Your task to perform on an android device: turn off location history Image 0: 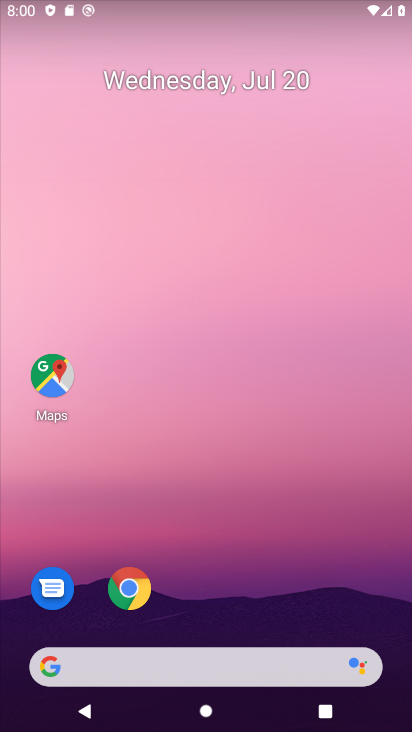
Step 0: drag from (27, 689) to (273, 11)
Your task to perform on an android device: turn off location history Image 1: 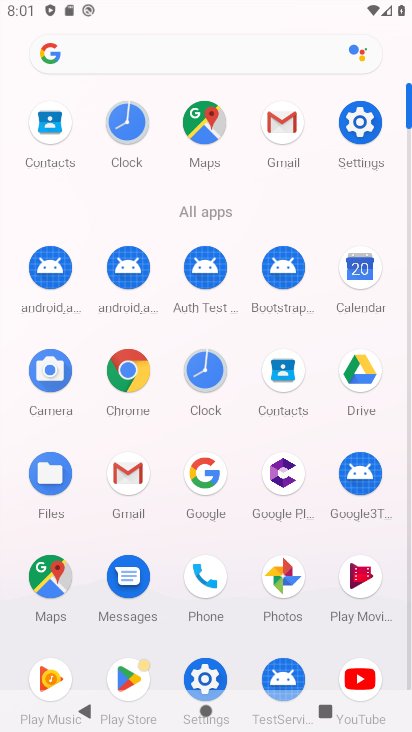
Step 1: click (201, 680)
Your task to perform on an android device: turn off location history Image 2: 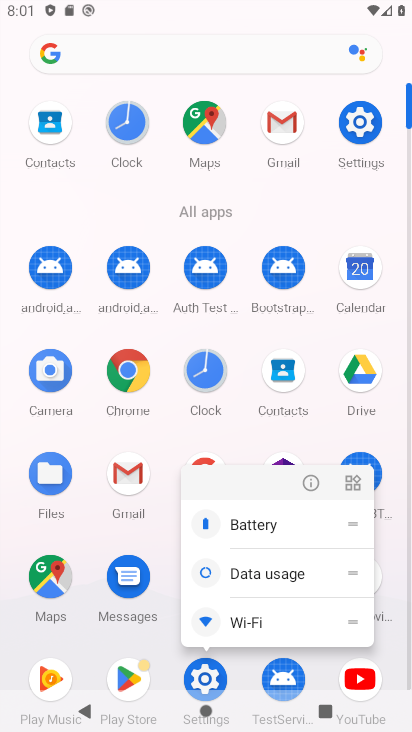
Step 2: click (192, 685)
Your task to perform on an android device: turn off location history Image 3: 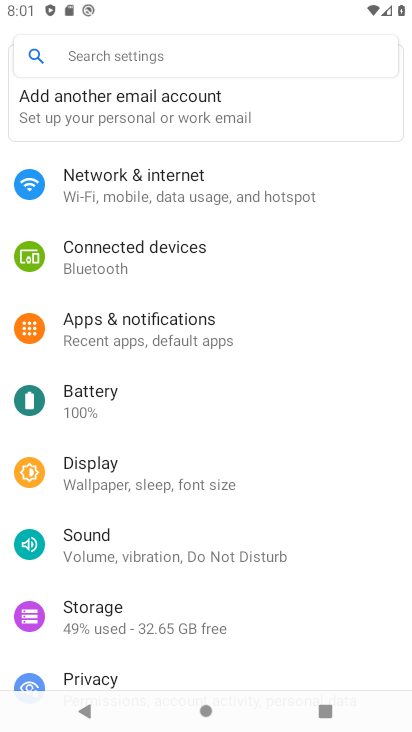
Step 3: drag from (339, 606) to (399, 315)
Your task to perform on an android device: turn off location history Image 4: 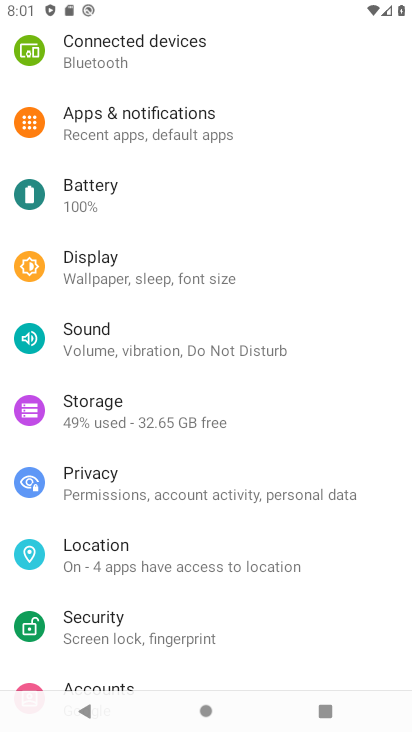
Step 4: click (108, 549)
Your task to perform on an android device: turn off location history Image 5: 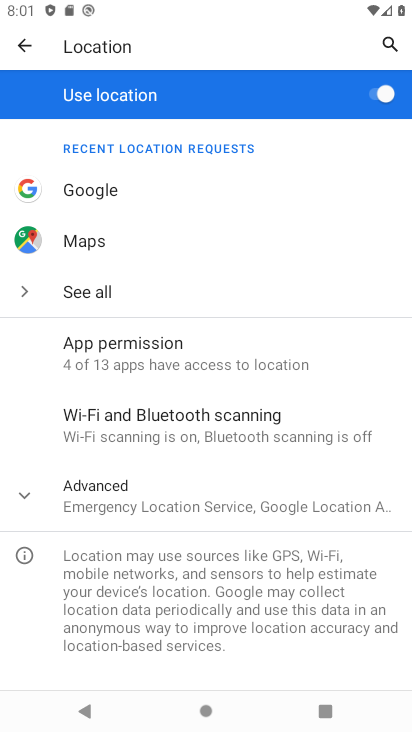
Step 5: click (153, 495)
Your task to perform on an android device: turn off location history Image 6: 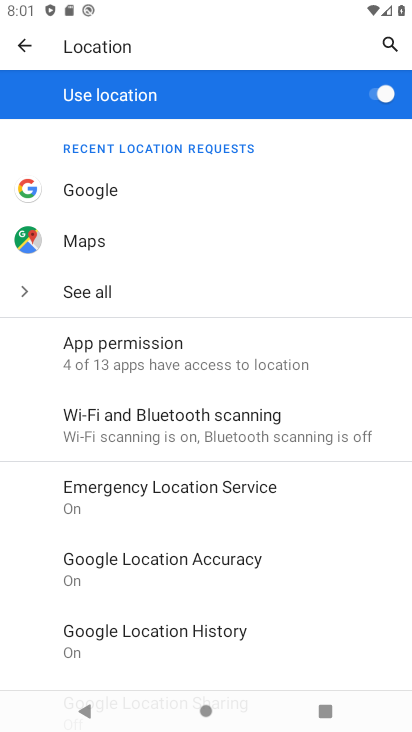
Step 6: click (147, 644)
Your task to perform on an android device: turn off location history Image 7: 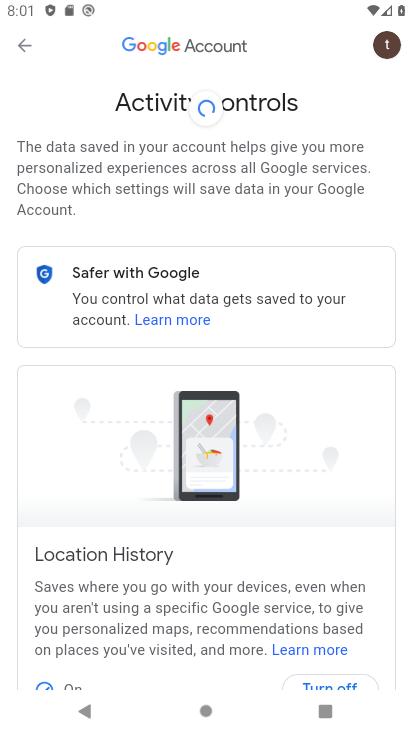
Step 7: drag from (269, 589) to (301, 376)
Your task to perform on an android device: turn off location history Image 8: 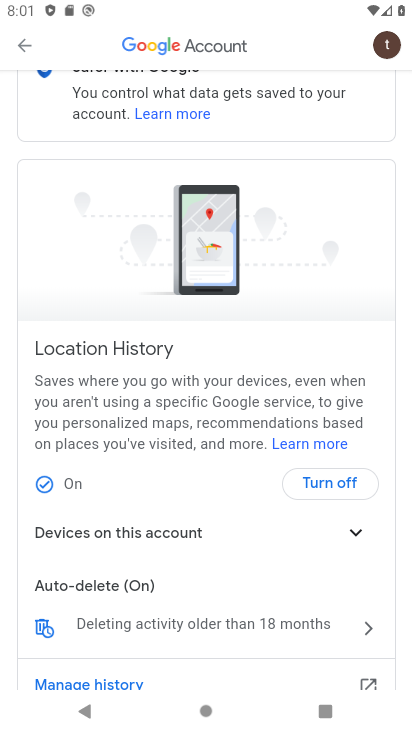
Step 8: click (334, 472)
Your task to perform on an android device: turn off location history Image 9: 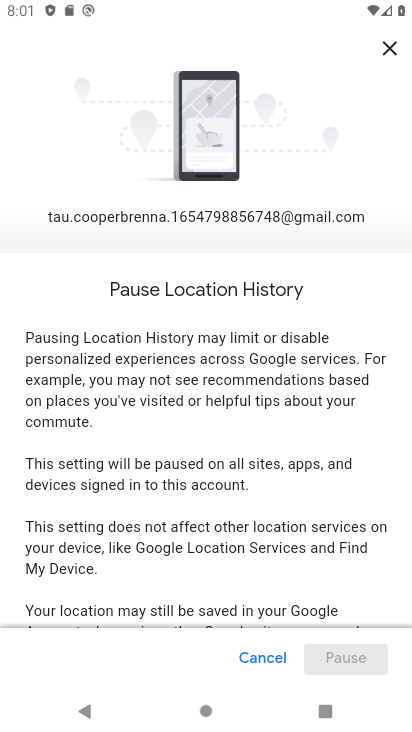
Step 9: drag from (307, 574) to (292, 200)
Your task to perform on an android device: turn off location history Image 10: 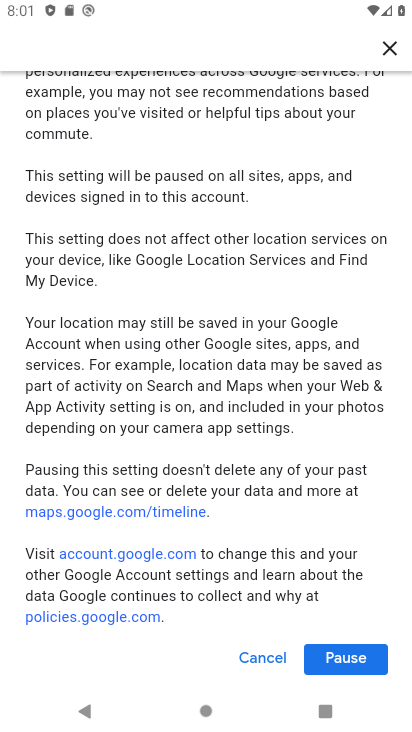
Step 10: click (353, 652)
Your task to perform on an android device: turn off location history Image 11: 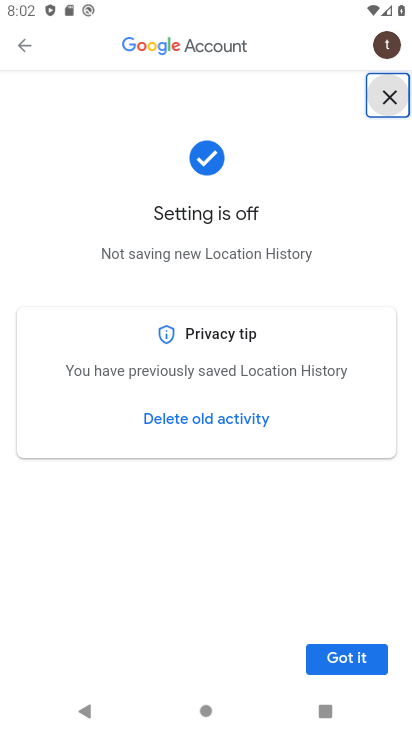
Step 11: click (361, 670)
Your task to perform on an android device: turn off location history Image 12: 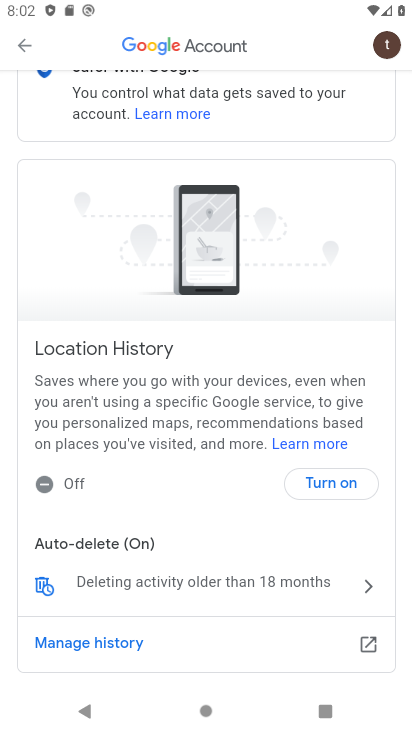
Step 12: task complete